Your task to perform on an android device: open chrome and create a bookmark for the current page Image 0: 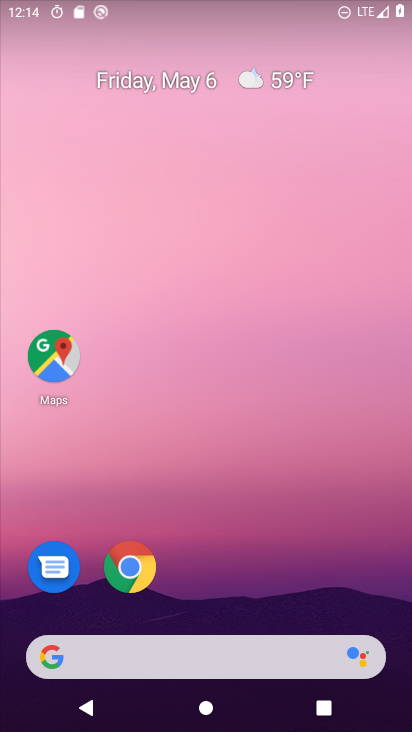
Step 0: click (140, 577)
Your task to perform on an android device: open chrome and create a bookmark for the current page Image 1: 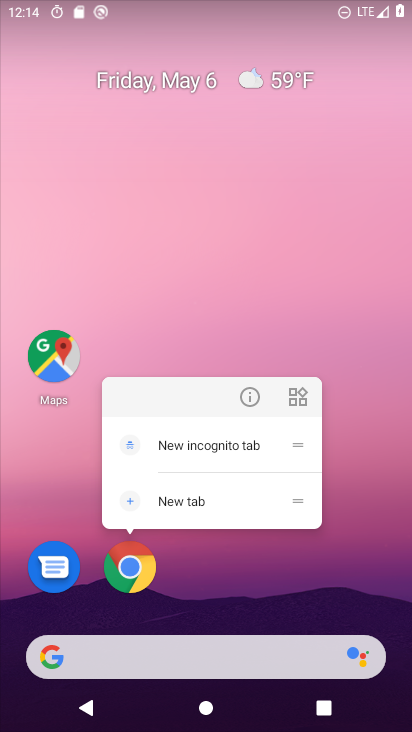
Step 1: click (143, 574)
Your task to perform on an android device: open chrome and create a bookmark for the current page Image 2: 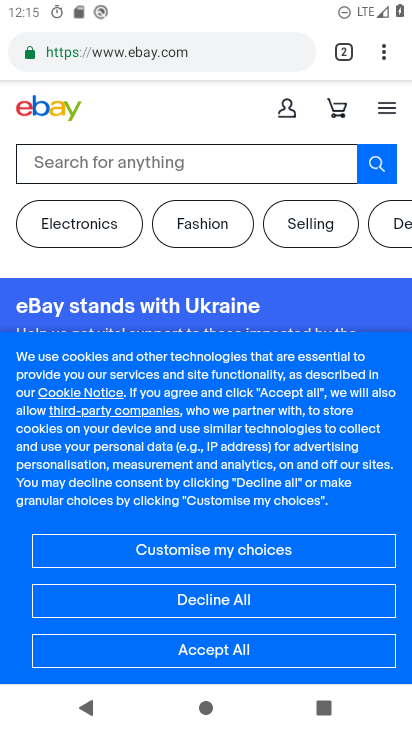
Step 2: click (385, 51)
Your task to perform on an android device: open chrome and create a bookmark for the current page Image 3: 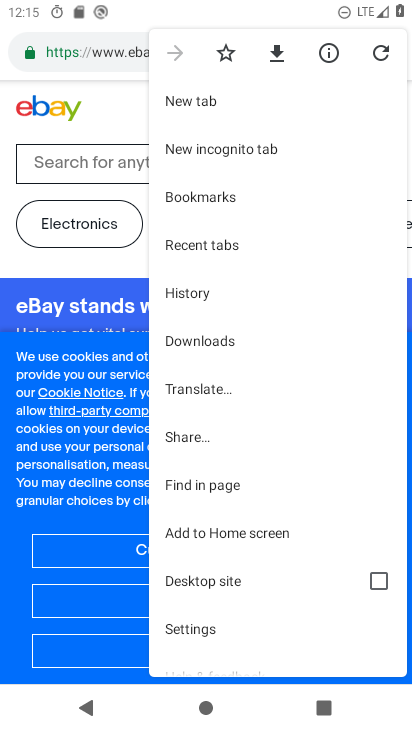
Step 3: click (227, 52)
Your task to perform on an android device: open chrome and create a bookmark for the current page Image 4: 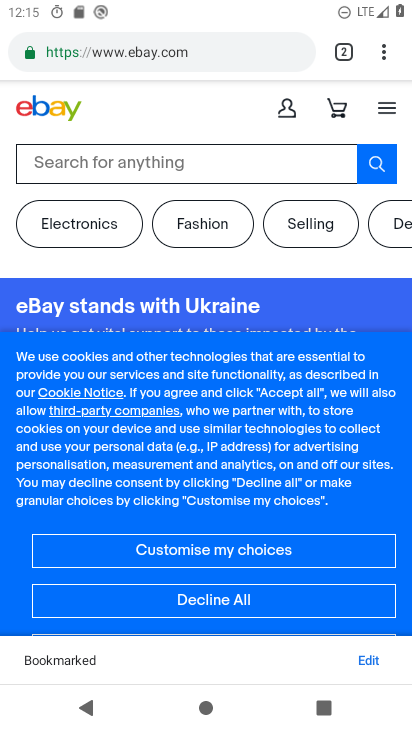
Step 4: task complete